Your task to perform on an android device: Open network settings Image 0: 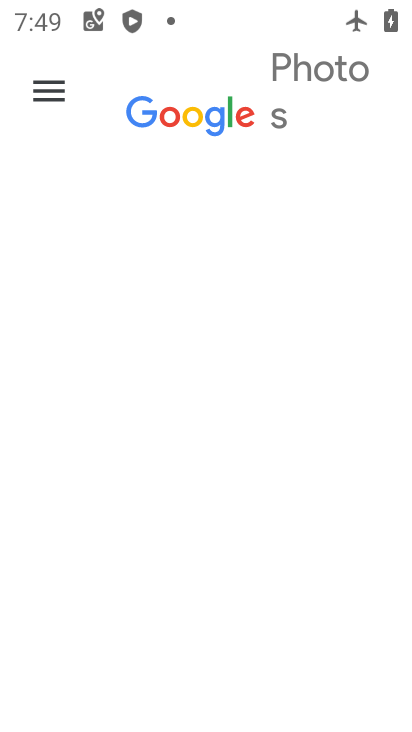
Step 0: drag from (347, 562) to (274, 331)
Your task to perform on an android device: Open network settings Image 1: 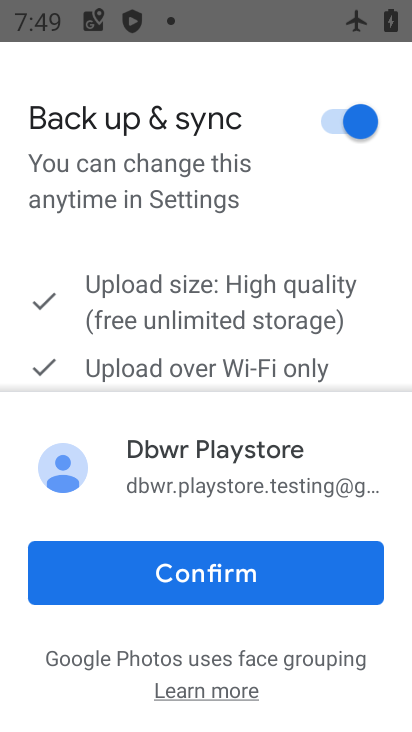
Step 1: press home button
Your task to perform on an android device: Open network settings Image 2: 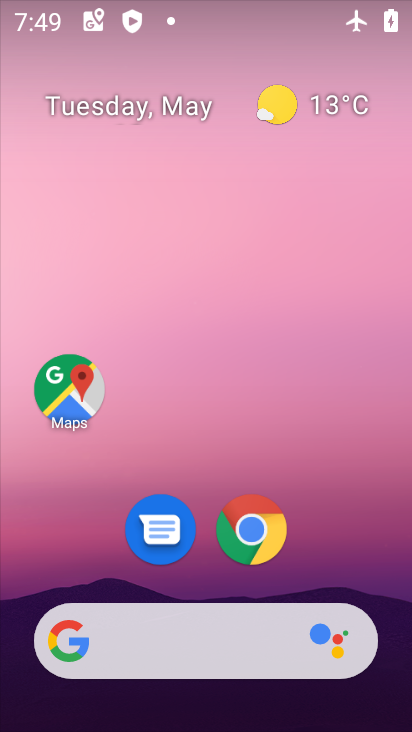
Step 2: drag from (326, 435) to (85, 11)
Your task to perform on an android device: Open network settings Image 3: 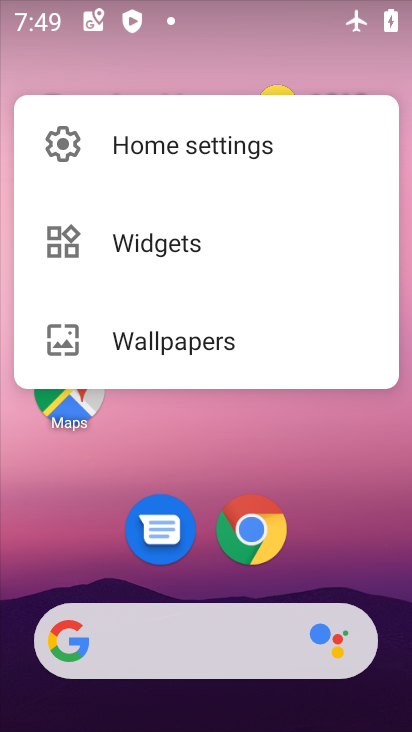
Step 3: click (238, 460)
Your task to perform on an android device: Open network settings Image 4: 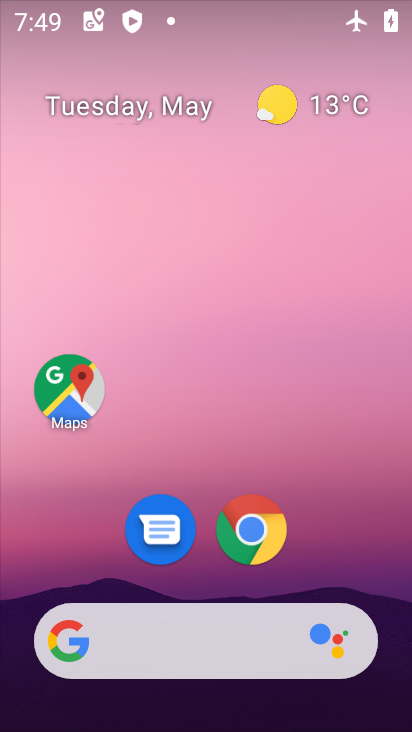
Step 4: click (238, 460)
Your task to perform on an android device: Open network settings Image 5: 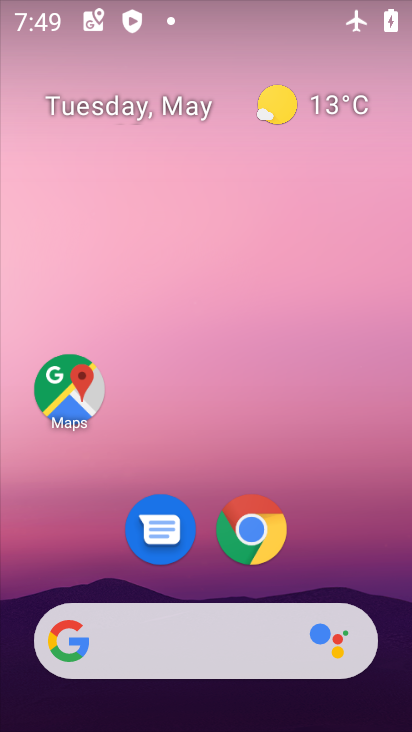
Step 5: drag from (238, 460) to (250, 0)
Your task to perform on an android device: Open network settings Image 6: 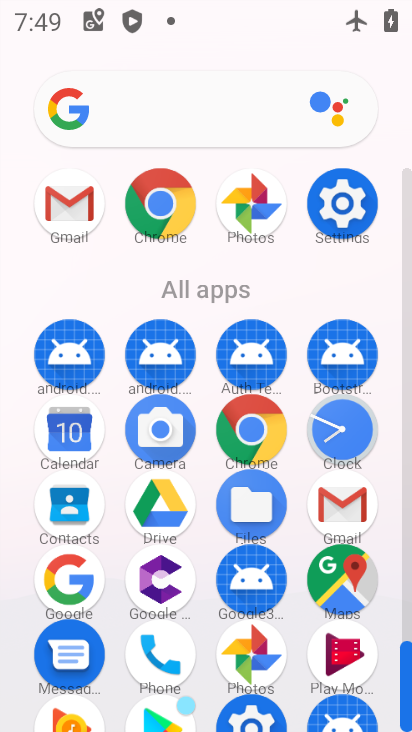
Step 6: click (343, 216)
Your task to perform on an android device: Open network settings Image 7: 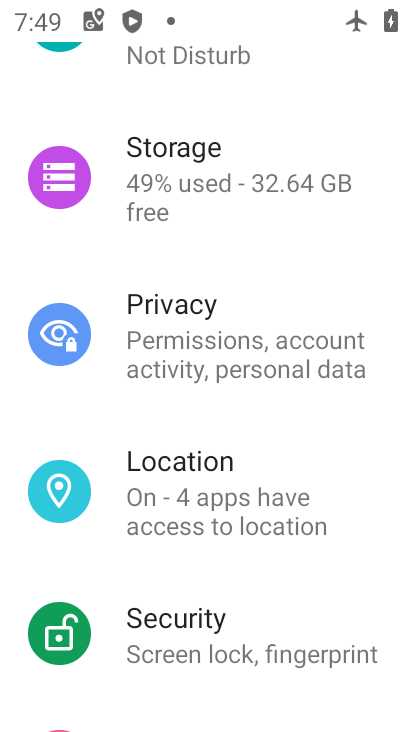
Step 7: drag from (204, 330) to (270, 547)
Your task to perform on an android device: Open network settings Image 8: 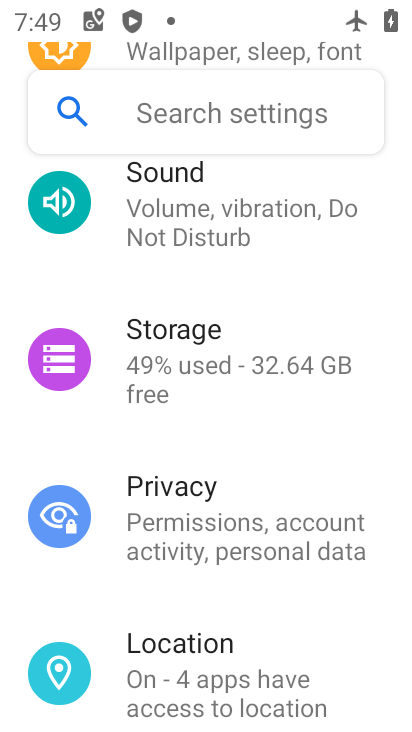
Step 8: drag from (268, 281) to (303, 651)
Your task to perform on an android device: Open network settings Image 9: 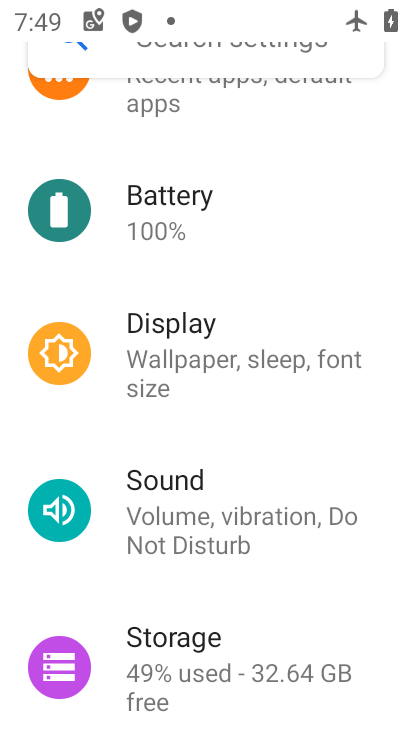
Step 9: drag from (268, 214) to (258, 655)
Your task to perform on an android device: Open network settings Image 10: 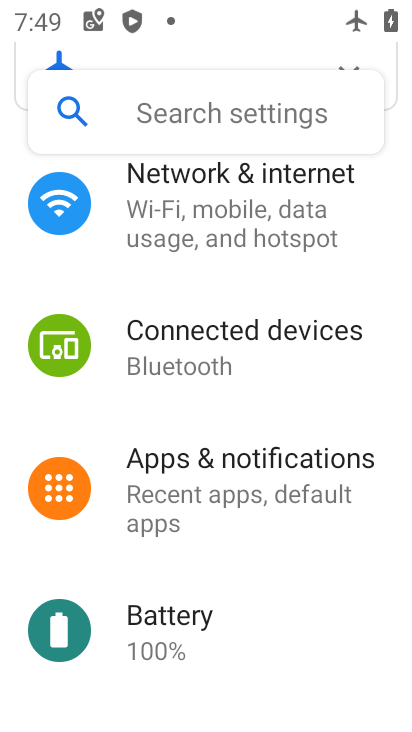
Step 10: click (210, 189)
Your task to perform on an android device: Open network settings Image 11: 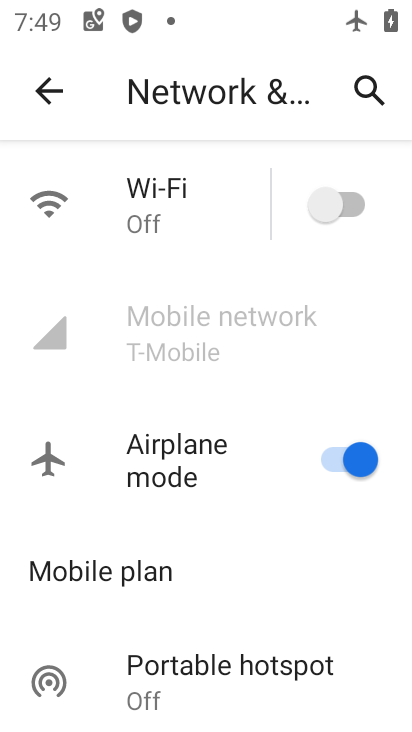
Step 11: click (359, 436)
Your task to perform on an android device: Open network settings Image 12: 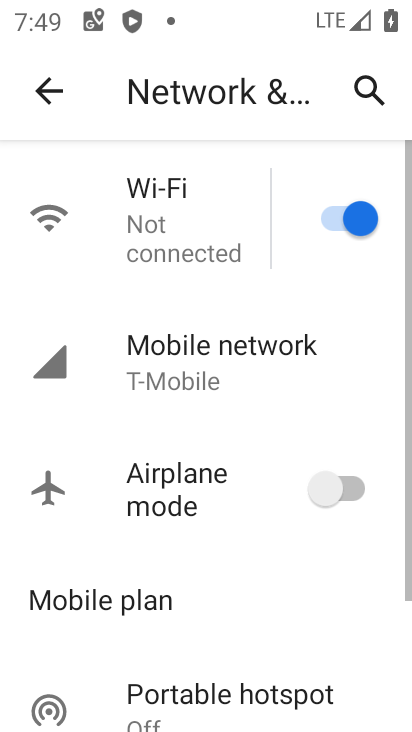
Step 12: task complete